Your task to perform on an android device: open device folders in google photos Image 0: 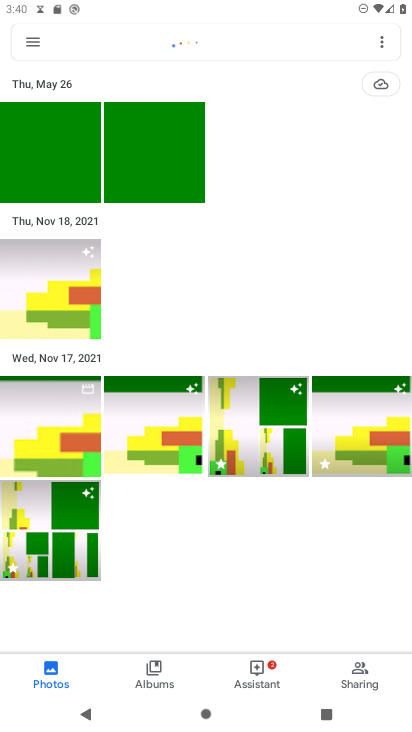
Step 0: press home button
Your task to perform on an android device: open device folders in google photos Image 1: 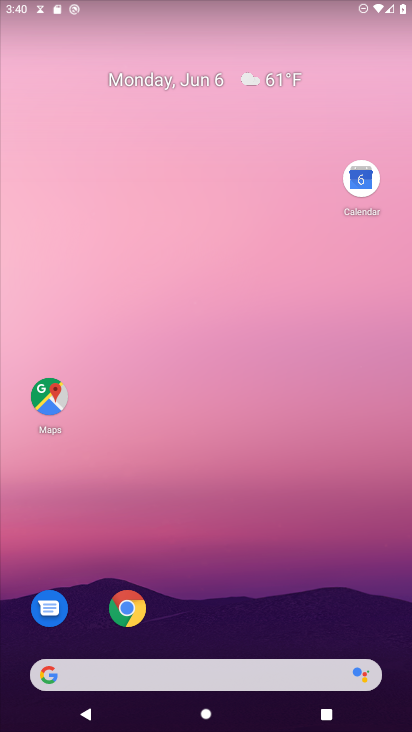
Step 1: drag from (216, 603) to (202, 123)
Your task to perform on an android device: open device folders in google photos Image 2: 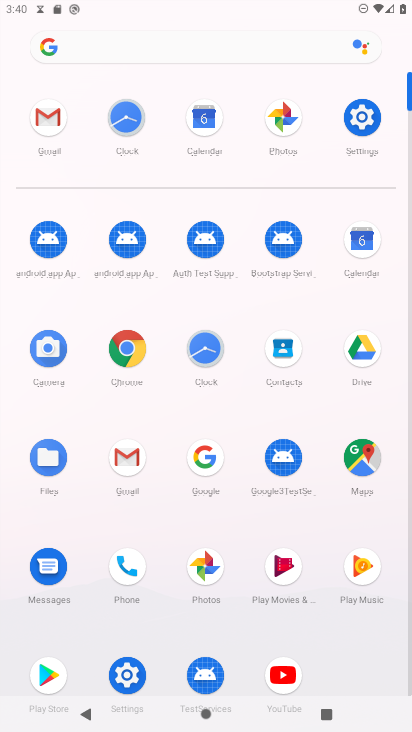
Step 2: click (199, 567)
Your task to perform on an android device: open device folders in google photos Image 3: 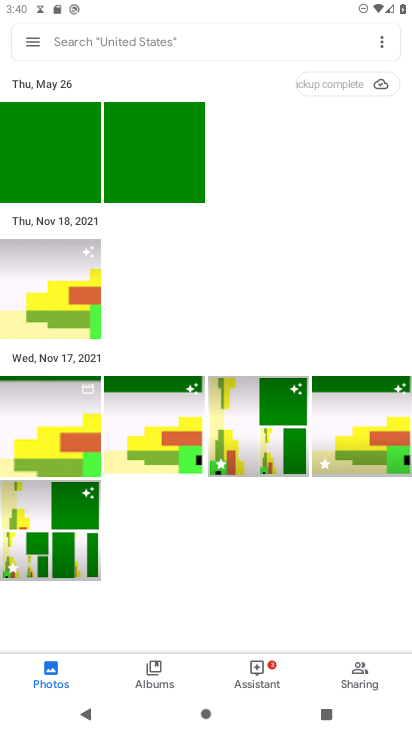
Step 3: click (30, 36)
Your task to perform on an android device: open device folders in google photos Image 4: 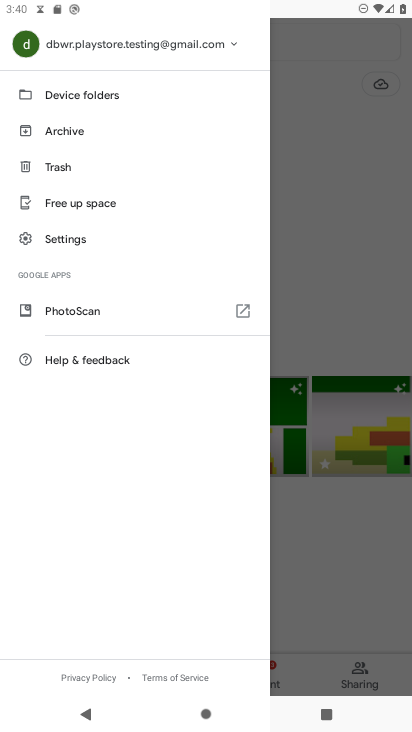
Step 4: click (80, 93)
Your task to perform on an android device: open device folders in google photos Image 5: 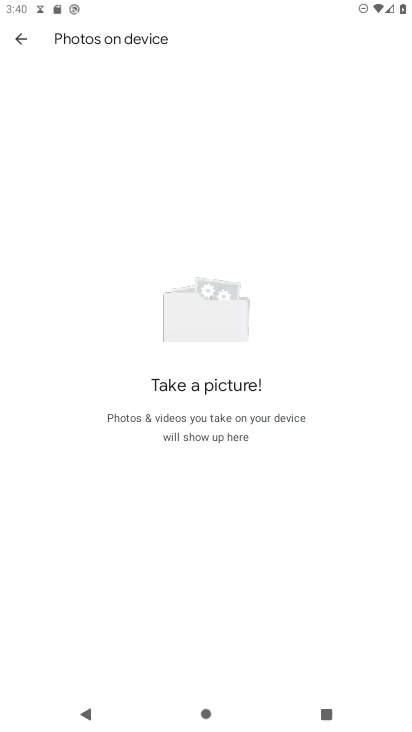
Step 5: task complete